Your task to perform on an android device: Open the map Image 0: 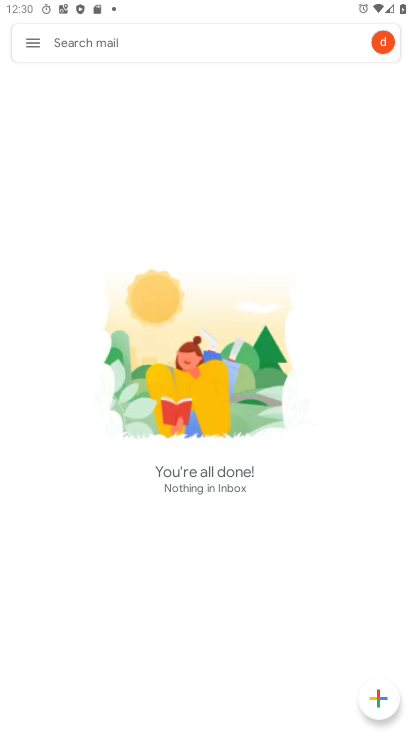
Step 0: press home button
Your task to perform on an android device: Open the map Image 1: 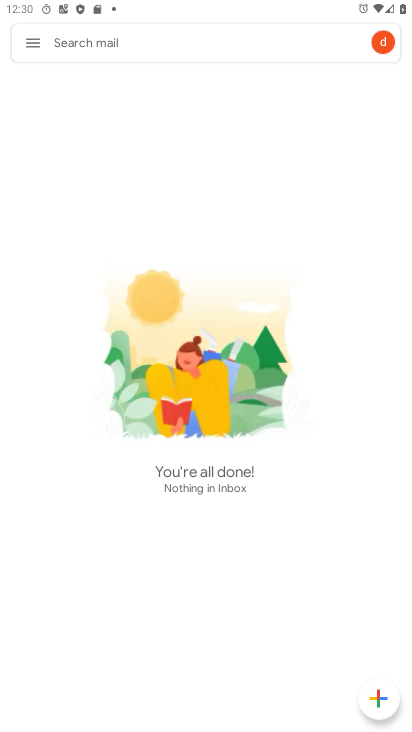
Step 1: press home button
Your task to perform on an android device: Open the map Image 2: 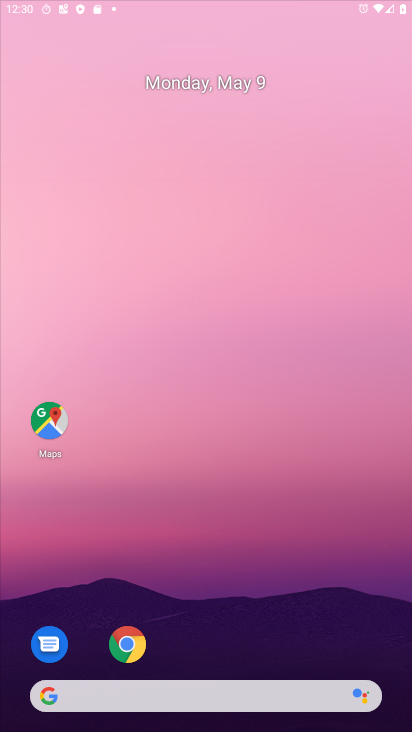
Step 2: press home button
Your task to perform on an android device: Open the map Image 3: 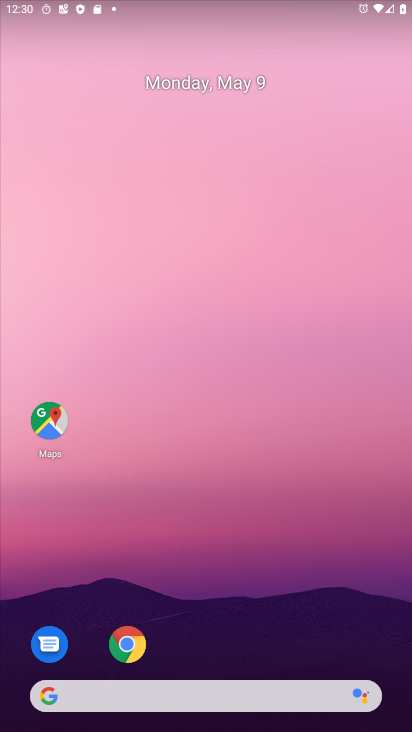
Step 3: click (51, 427)
Your task to perform on an android device: Open the map Image 4: 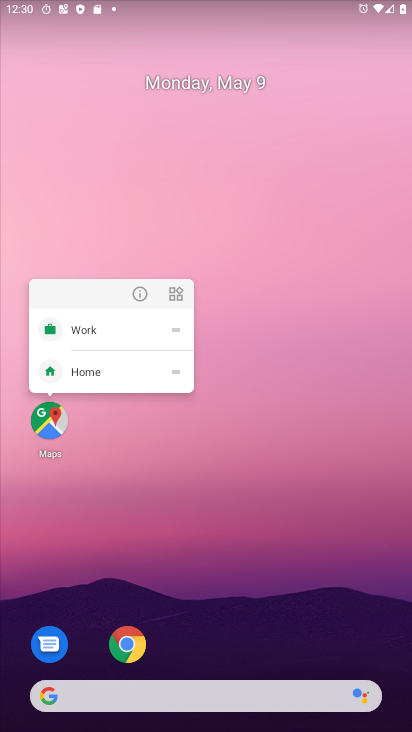
Step 4: click (52, 428)
Your task to perform on an android device: Open the map Image 5: 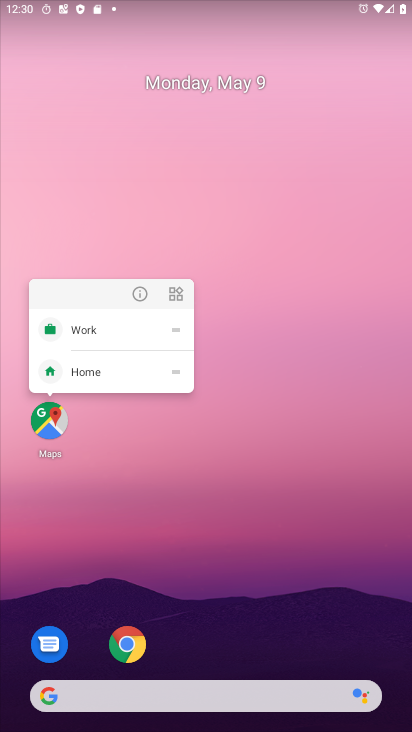
Step 5: click (52, 428)
Your task to perform on an android device: Open the map Image 6: 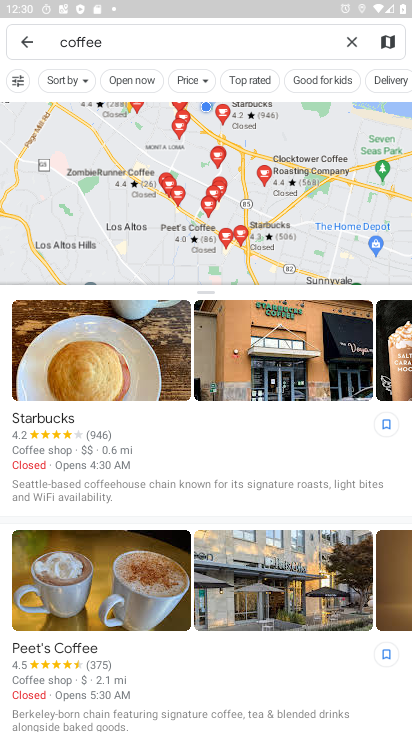
Step 6: task complete